Your task to perform on an android device: open wifi settings Image 0: 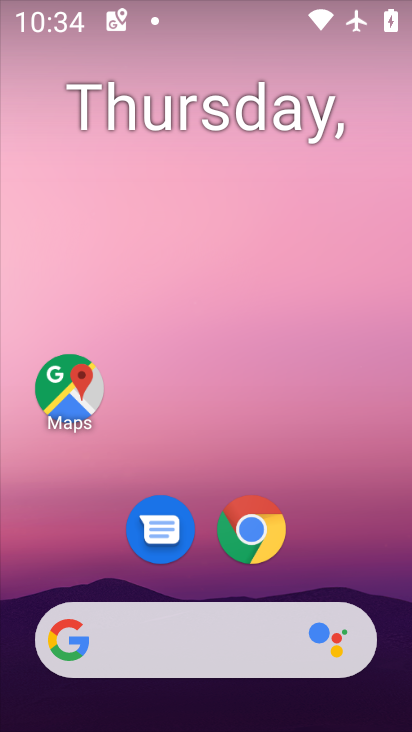
Step 0: drag from (215, 571) to (212, 98)
Your task to perform on an android device: open wifi settings Image 1: 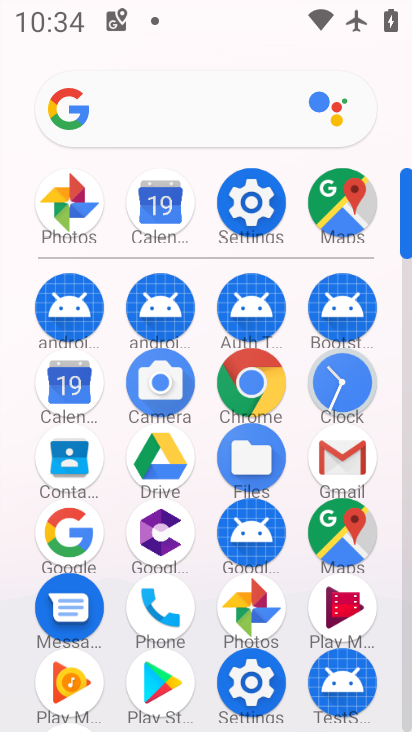
Step 1: click (256, 209)
Your task to perform on an android device: open wifi settings Image 2: 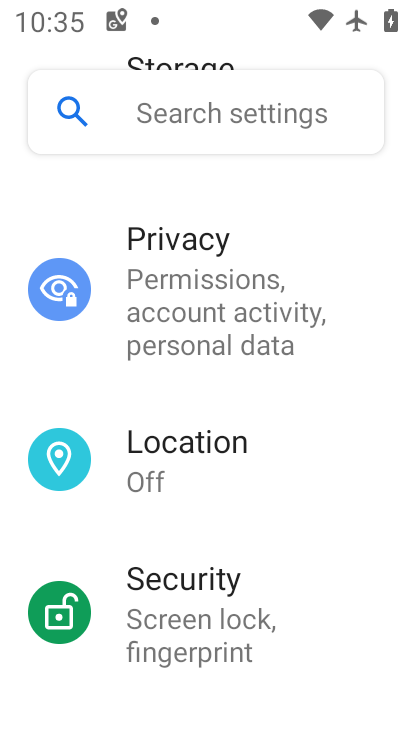
Step 2: drag from (205, 351) to (169, 640)
Your task to perform on an android device: open wifi settings Image 3: 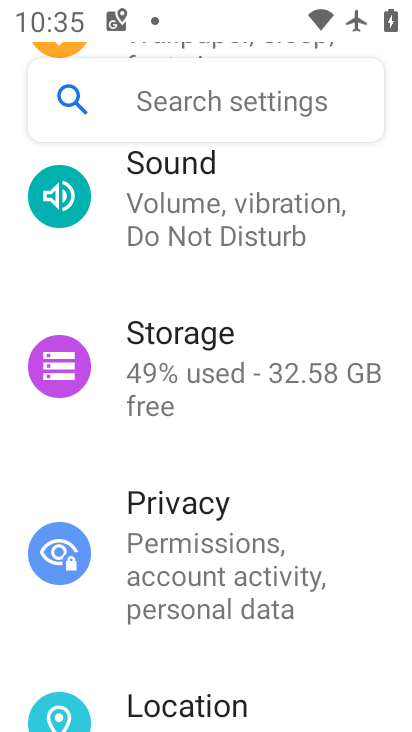
Step 3: drag from (189, 328) to (220, 562)
Your task to perform on an android device: open wifi settings Image 4: 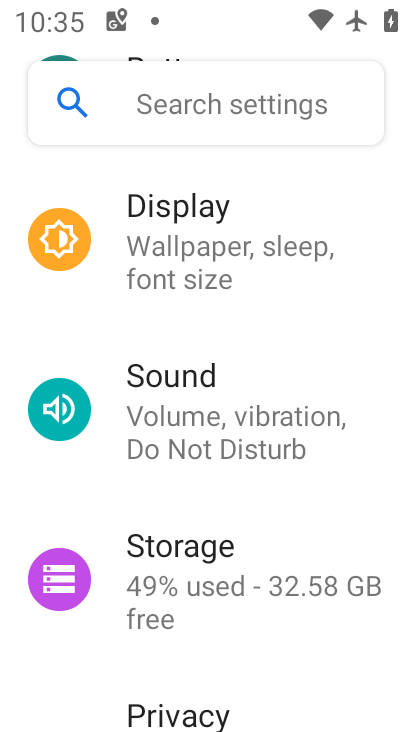
Step 4: drag from (199, 313) to (202, 567)
Your task to perform on an android device: open wifi settings Image 5: 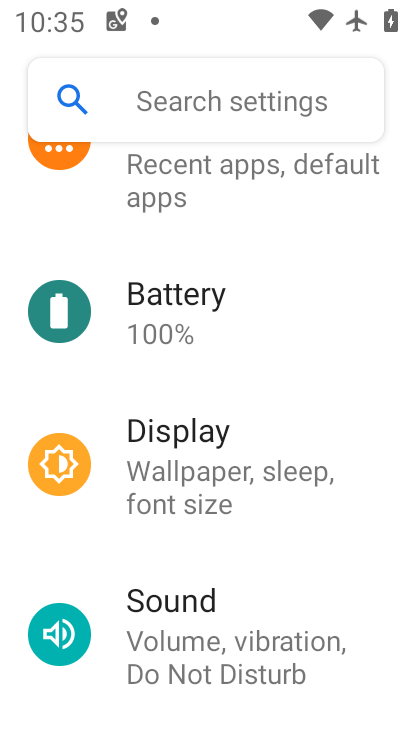
Step 5: drag from (179, 338) to (194, 576)
Your task to perform on an android device: open wifi settings Image 6: 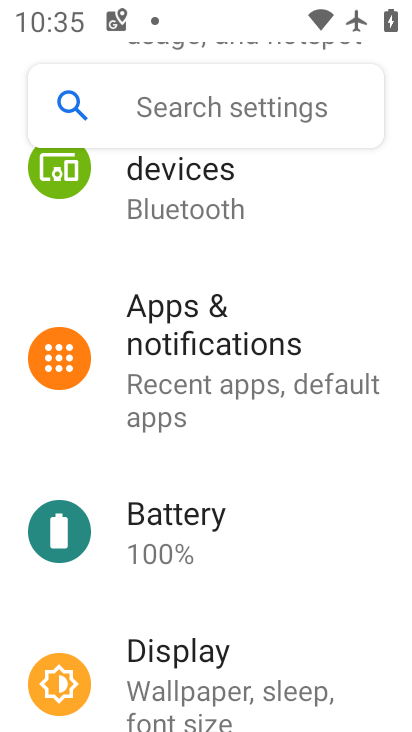
Step 6: drag from (169, 301) to (190, 603)
Your task to perform on an android device: open wifi settings Image 7: 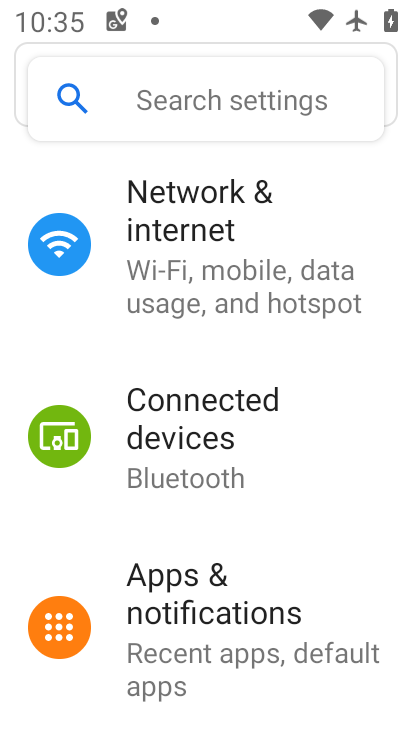
Step 7: click (182, 270)
Your task to perform on an android device: open wifi settings Image 8: 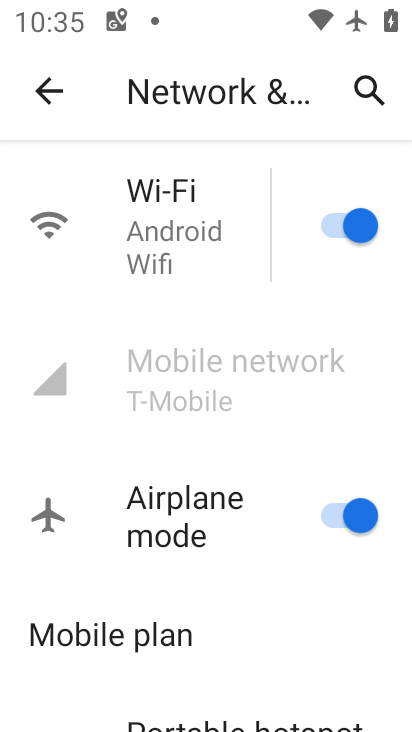
Step 8: click (118, 201)
Your task to perform on an android device: open wifi settings Image 9: 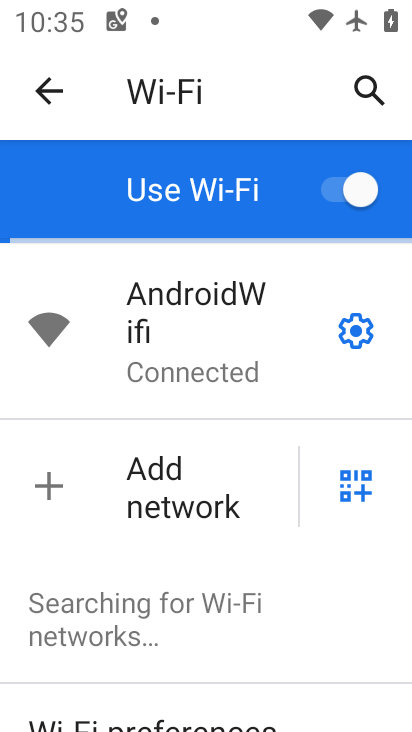
Step 9: task complete